Your task to perform on an android device: open app "Venmo" (install if not already installed), go to login, and select forgot password Image 0: 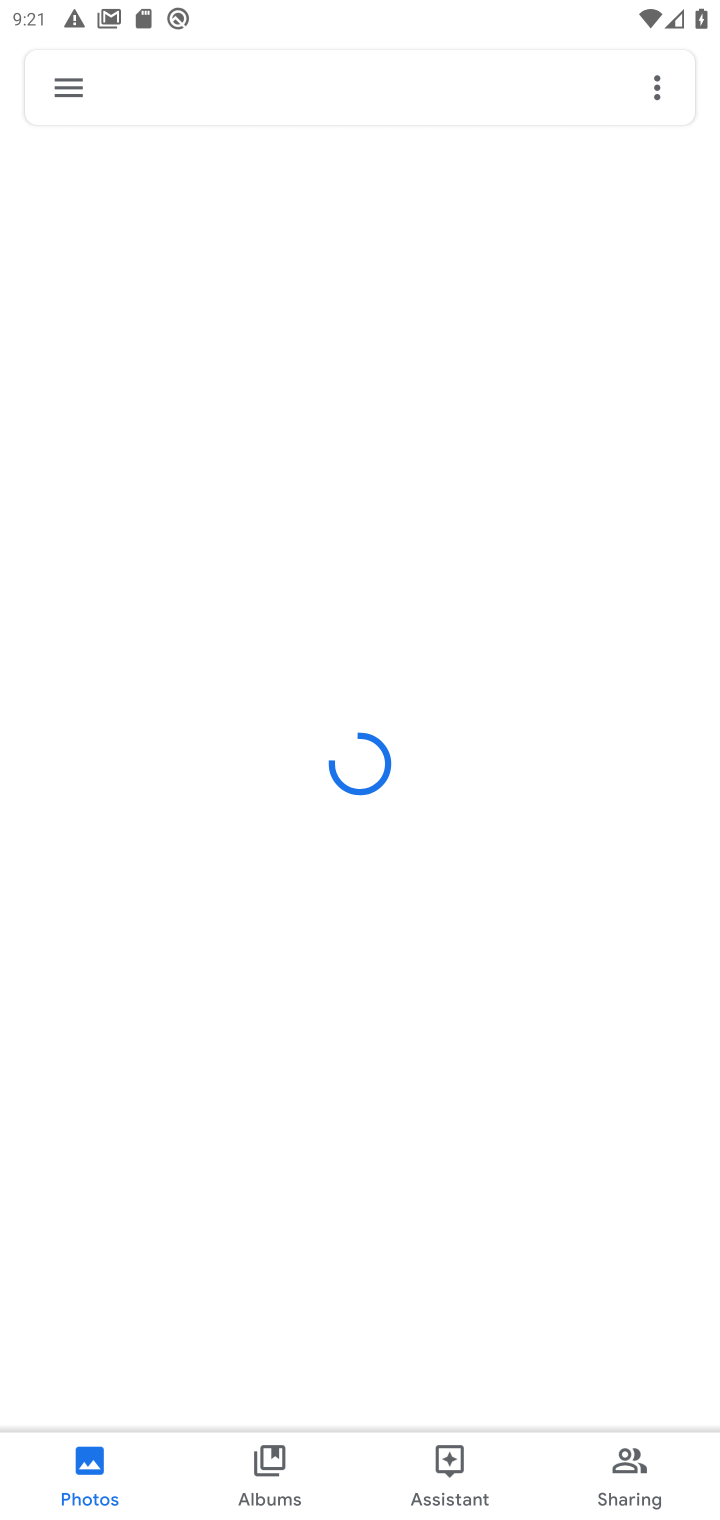
Step 0: press home button
Your task to perform on an android device: open app "Venmo" (install if not already installed), go to login, and select forgot password Image 1: 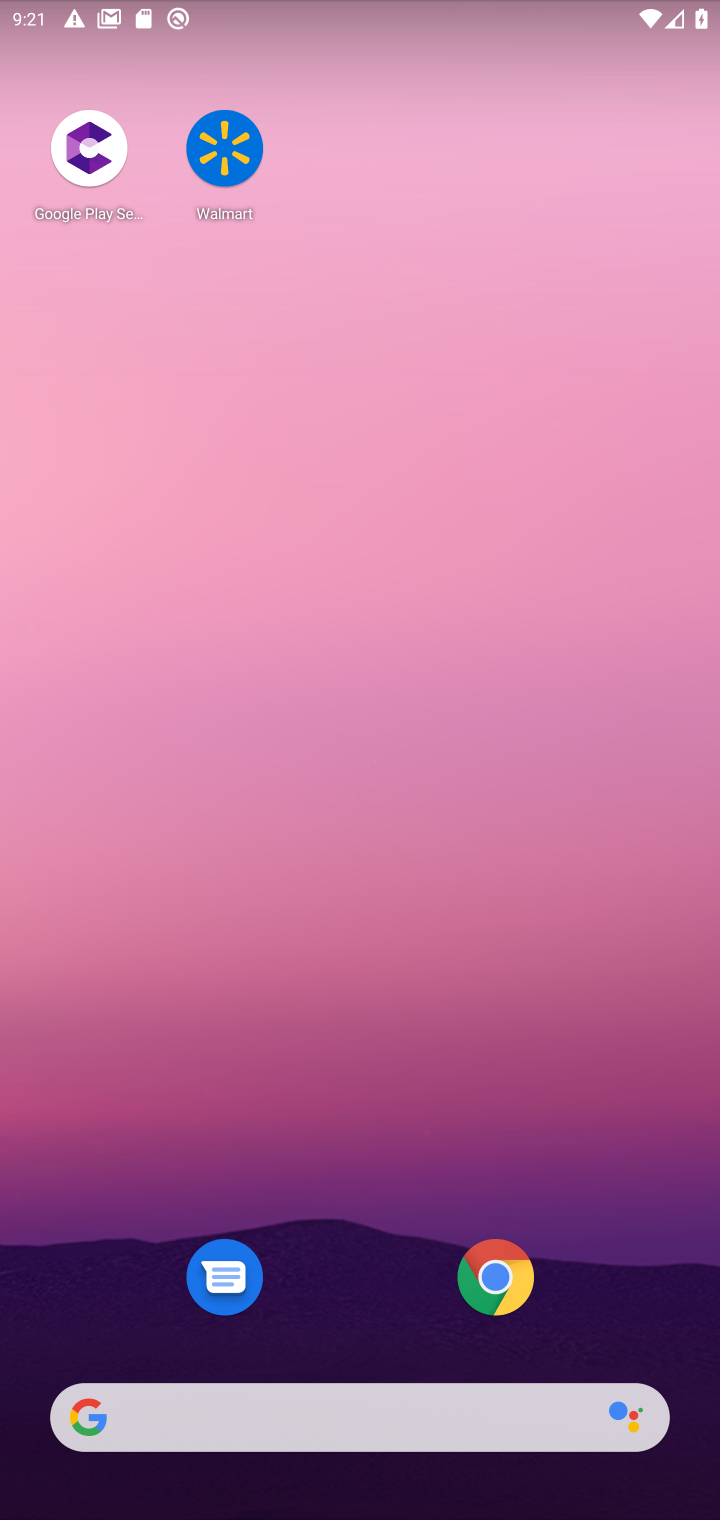
Step 1: drag from (329, 1188) to (295, 50)
Your task to perform on an android device: open app "Venmo" (install if not already installed), go to login, and select forgot password Image 2: 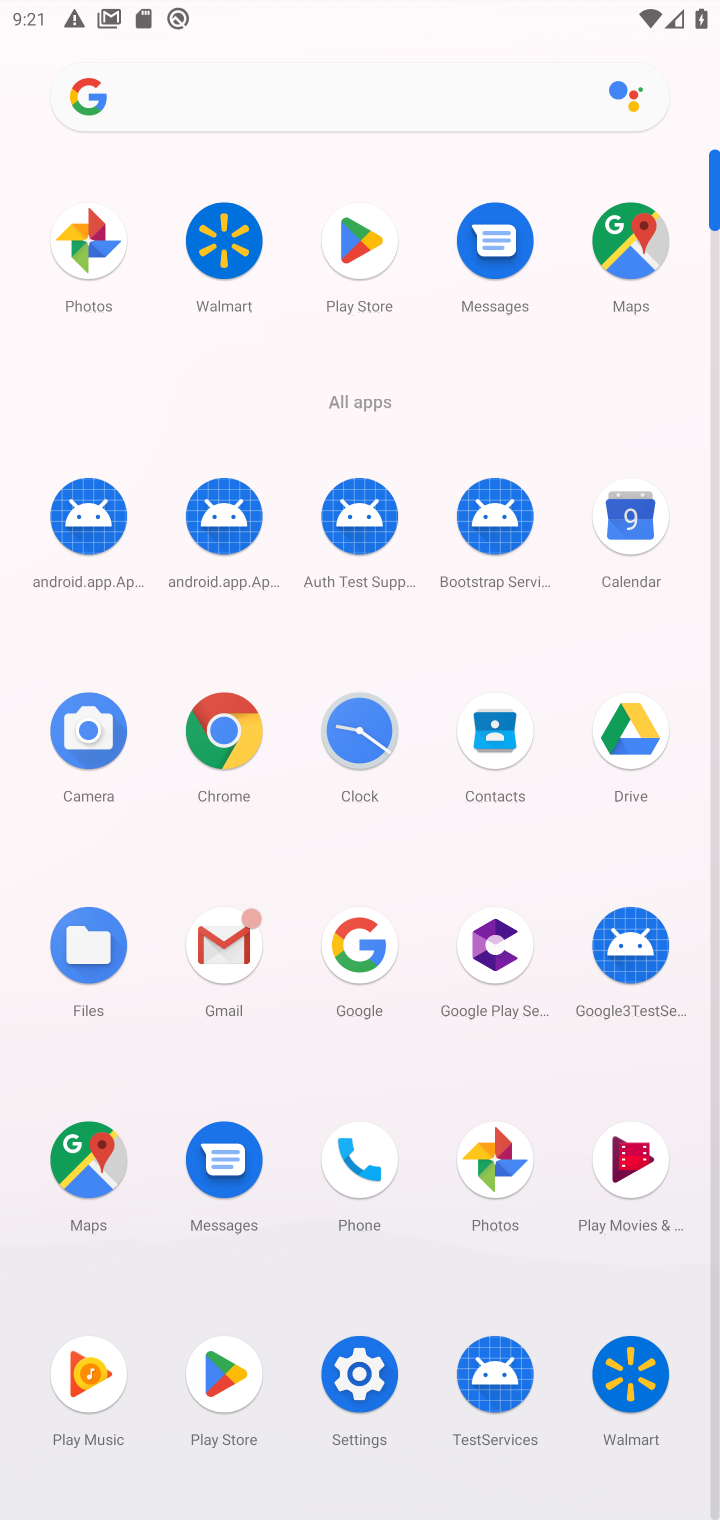
Step 2: click (208, 1346)
Your task to perform on an android device: open app "Venmo" (install if not already installed), go to login, and select forgot password Image 3: 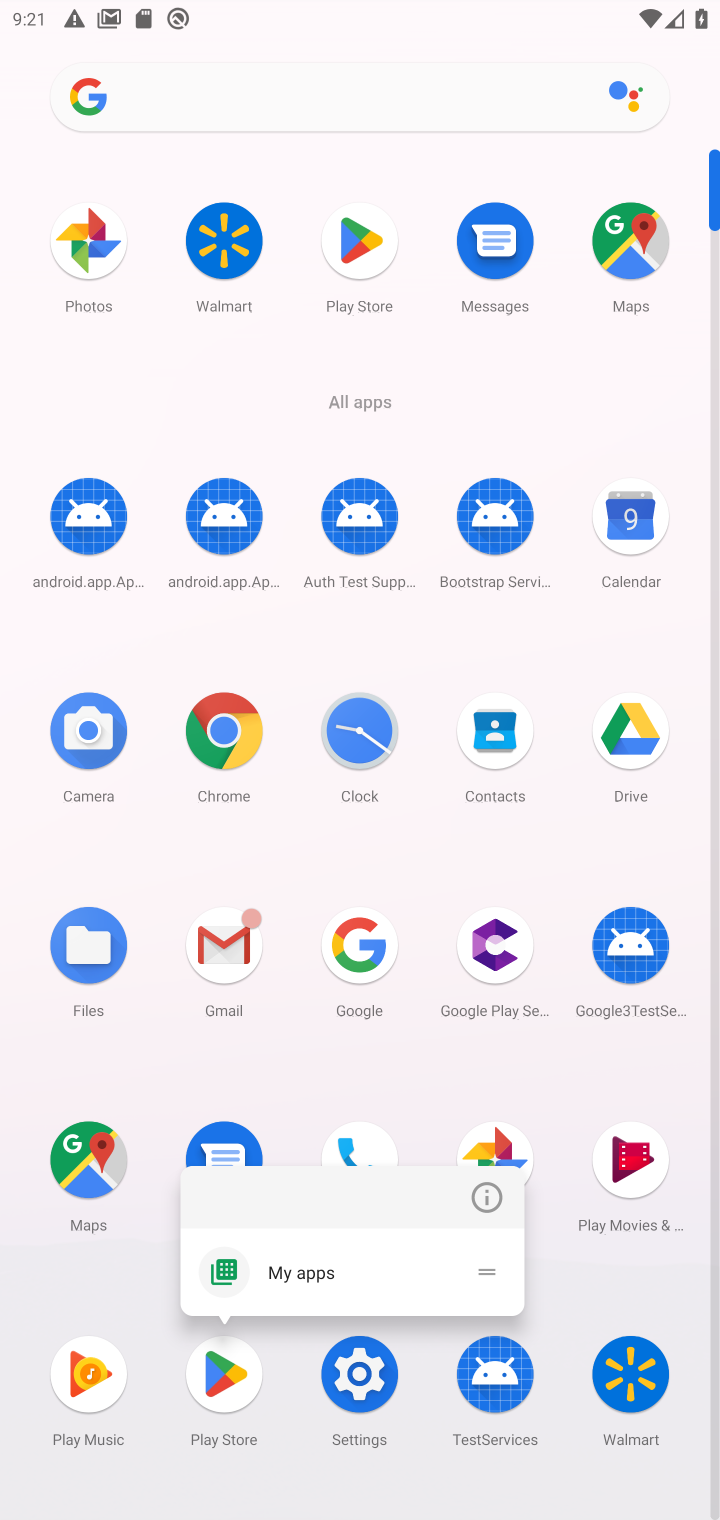
Step 3: click (217, 1368)
Your task to perform on an android device: open app "Venmo" (install if not already installed), go to login, and select forgot password Image 4: 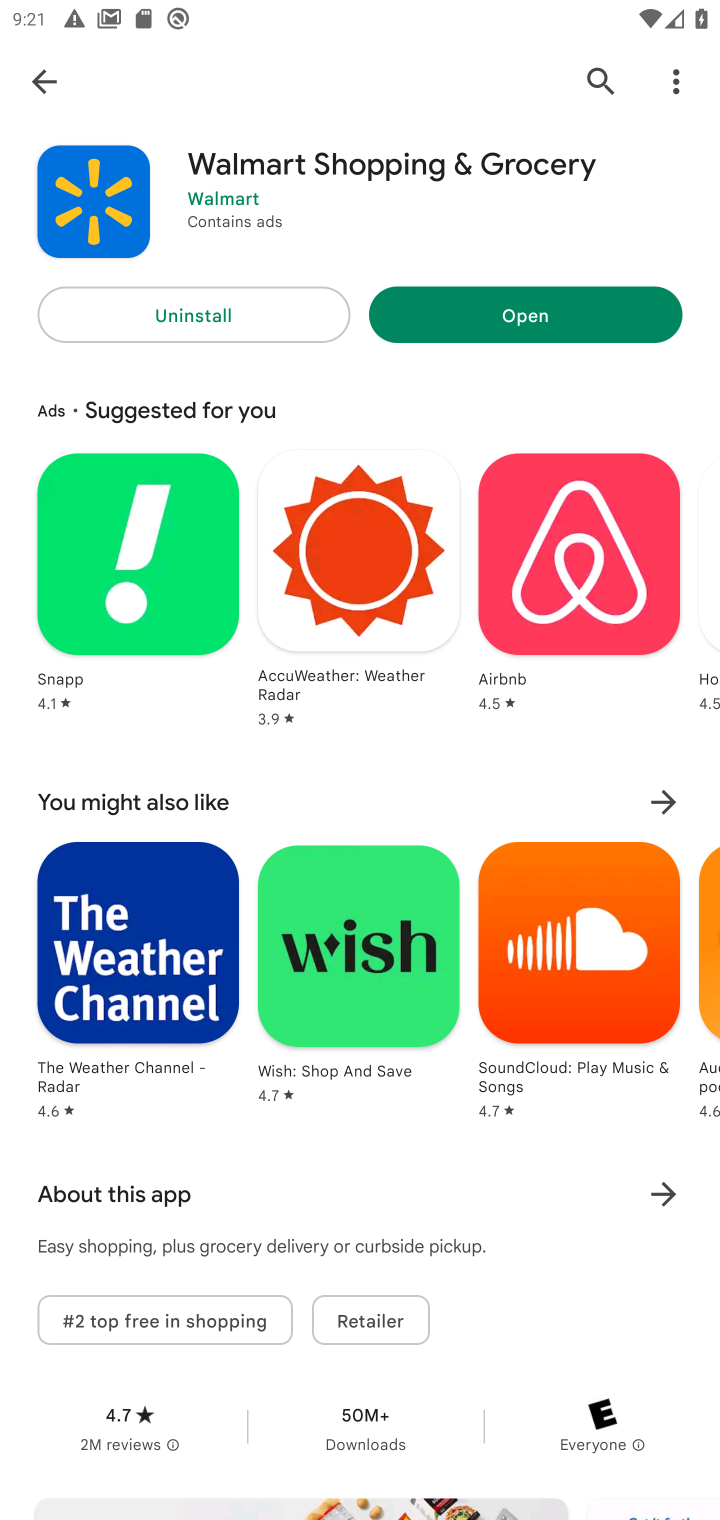
Step 4: click (46, 83)
Your task to perform on an android device: open app "Venmo" (install if not already installed), go to login, and select forgot password Image 5: 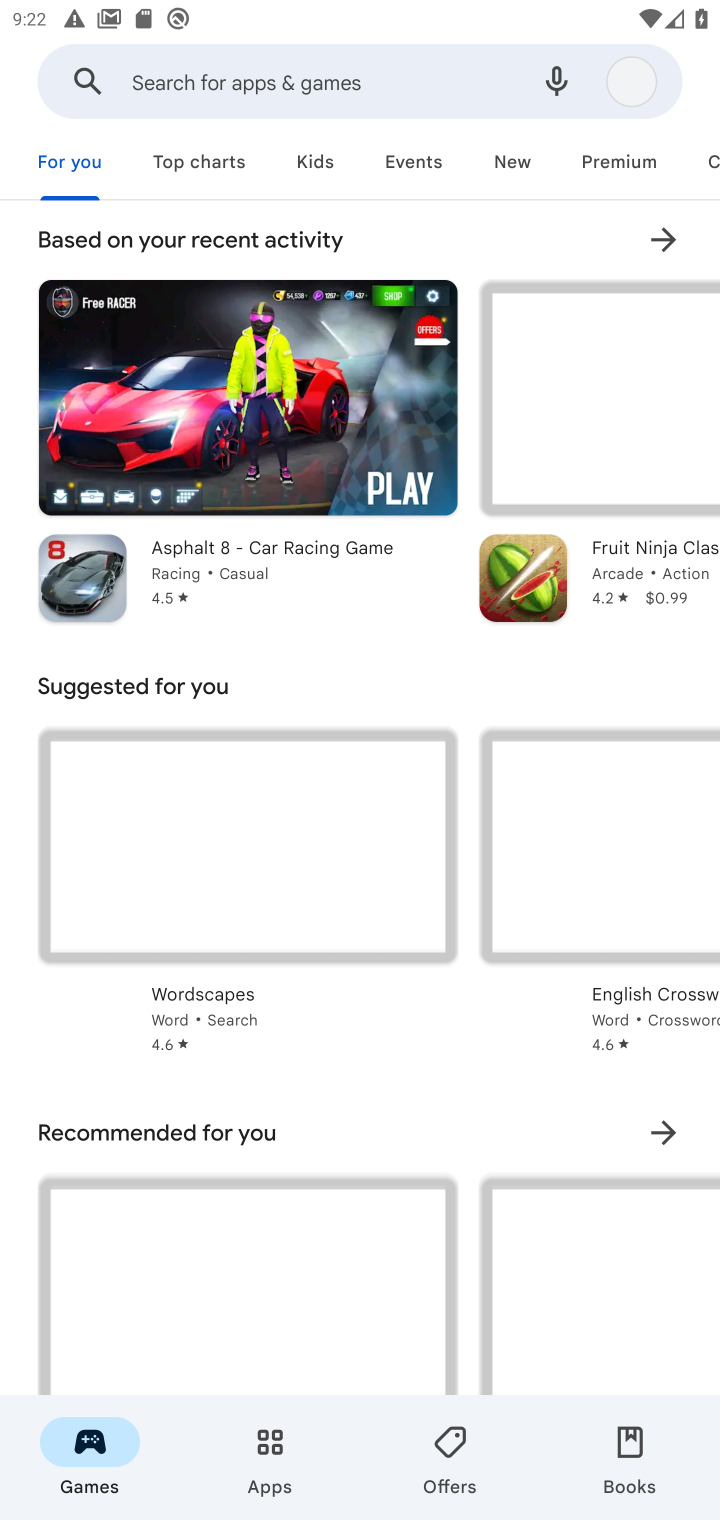
Step 5: click (292, 77)
Your task to perform on an android device: open app "Venmo" (install if not already installed), go to login, and select forgot password Image 6: 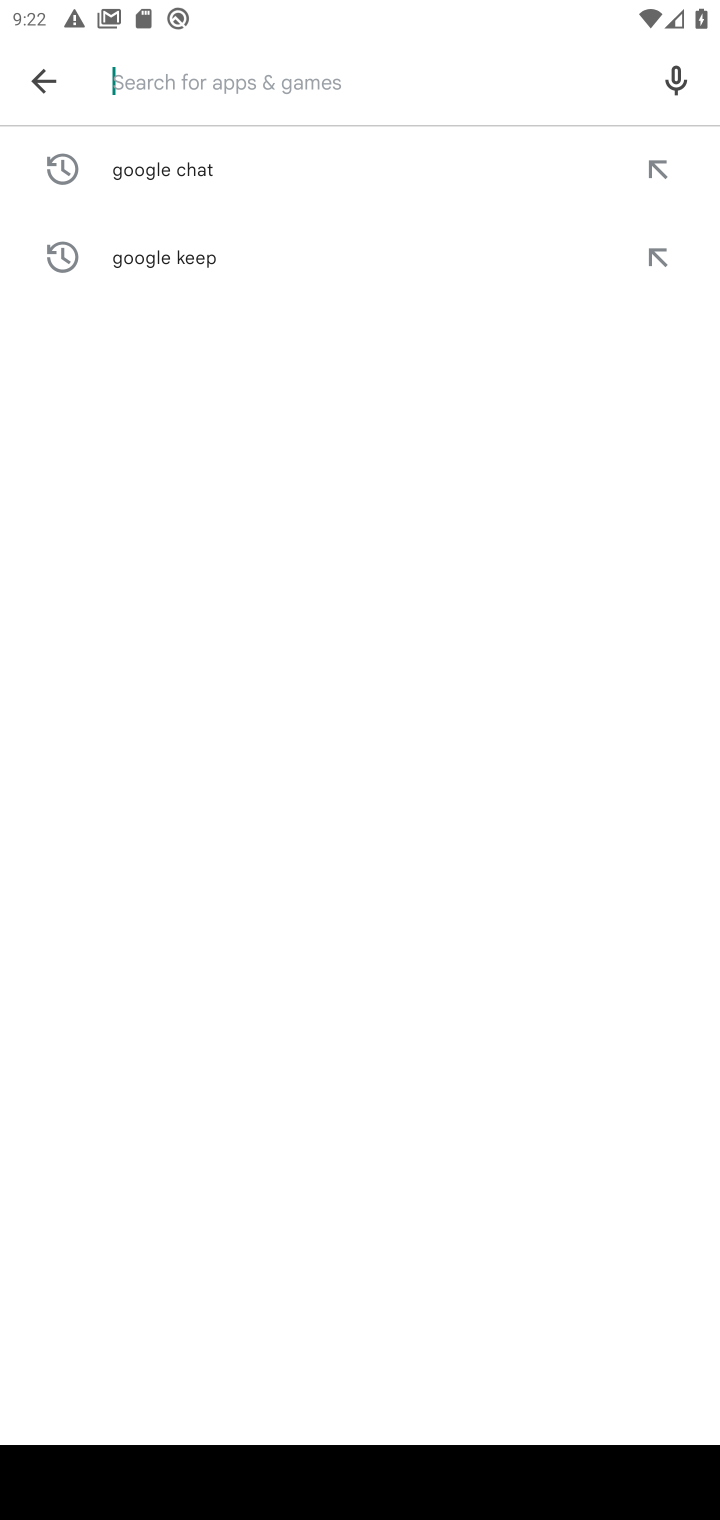
Step 6: type "Venmo"
Your task to perform on an android device: open app "Venmo" (install if not already installed), go to login, and select forgot password Image 7: 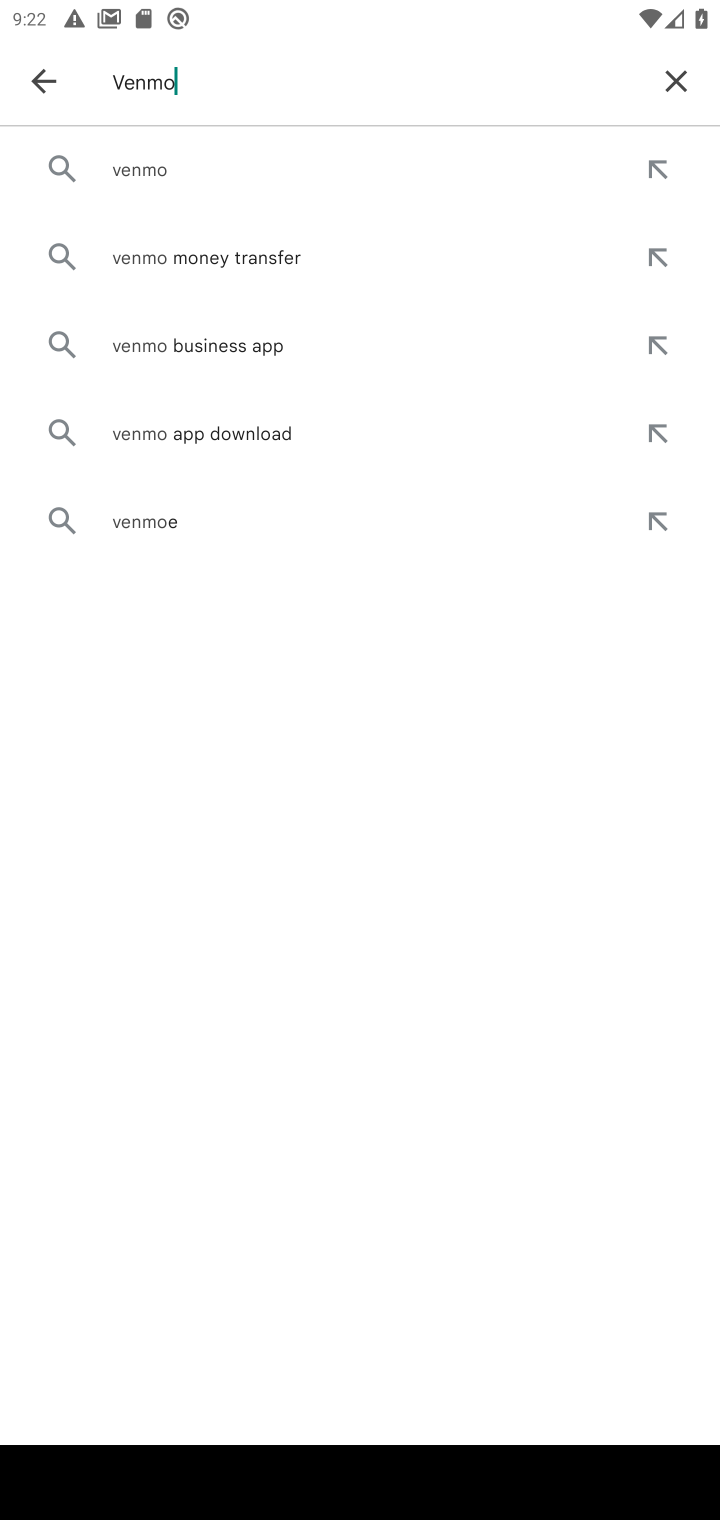
Step 7: click (191, 170)
Your task to perform on an android device: open app "Venmo" (install if not already installed), go to login, and select forgot password Image 8: 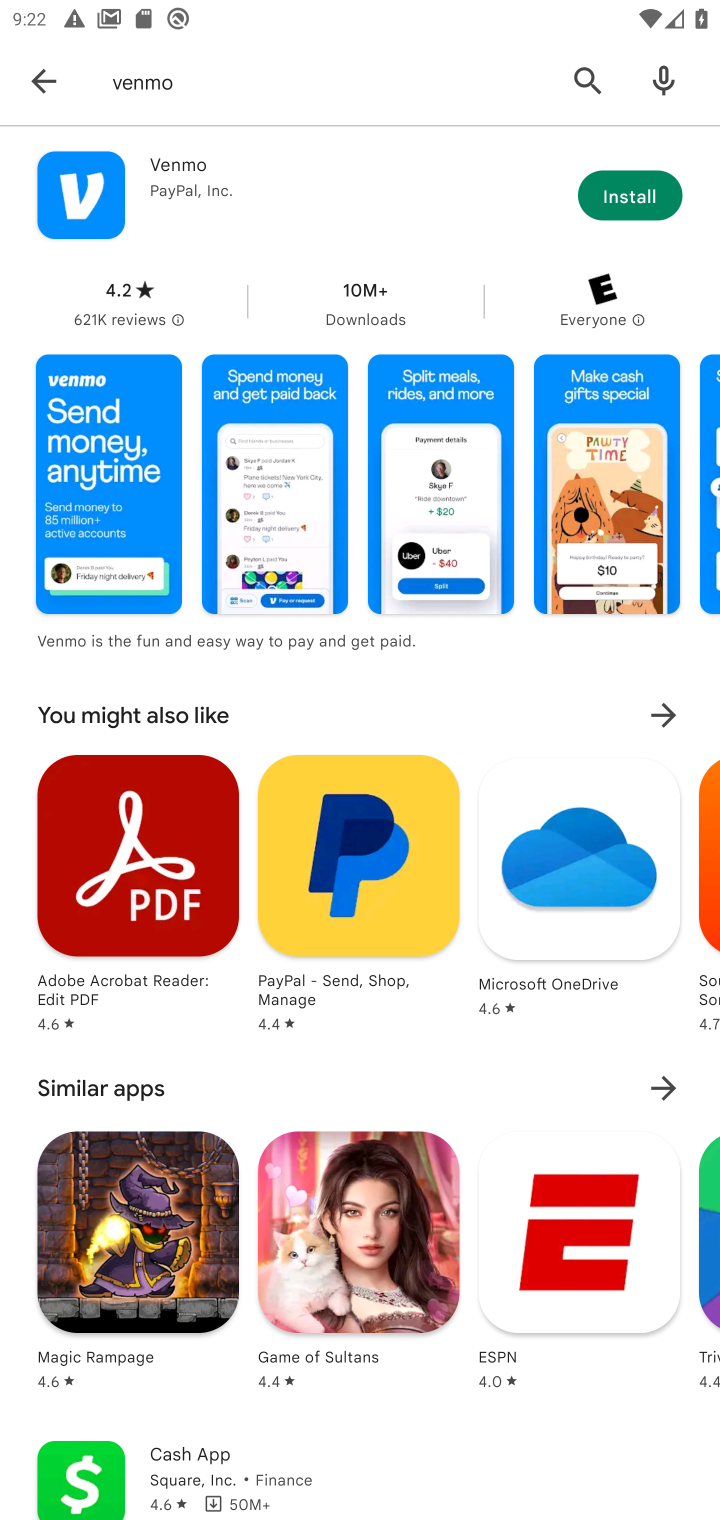
Step 8: click (608, 186)
Your task to perform on an android device: open app "Venmo" (install if not already installed), go to login, and select forgot password Image 9: 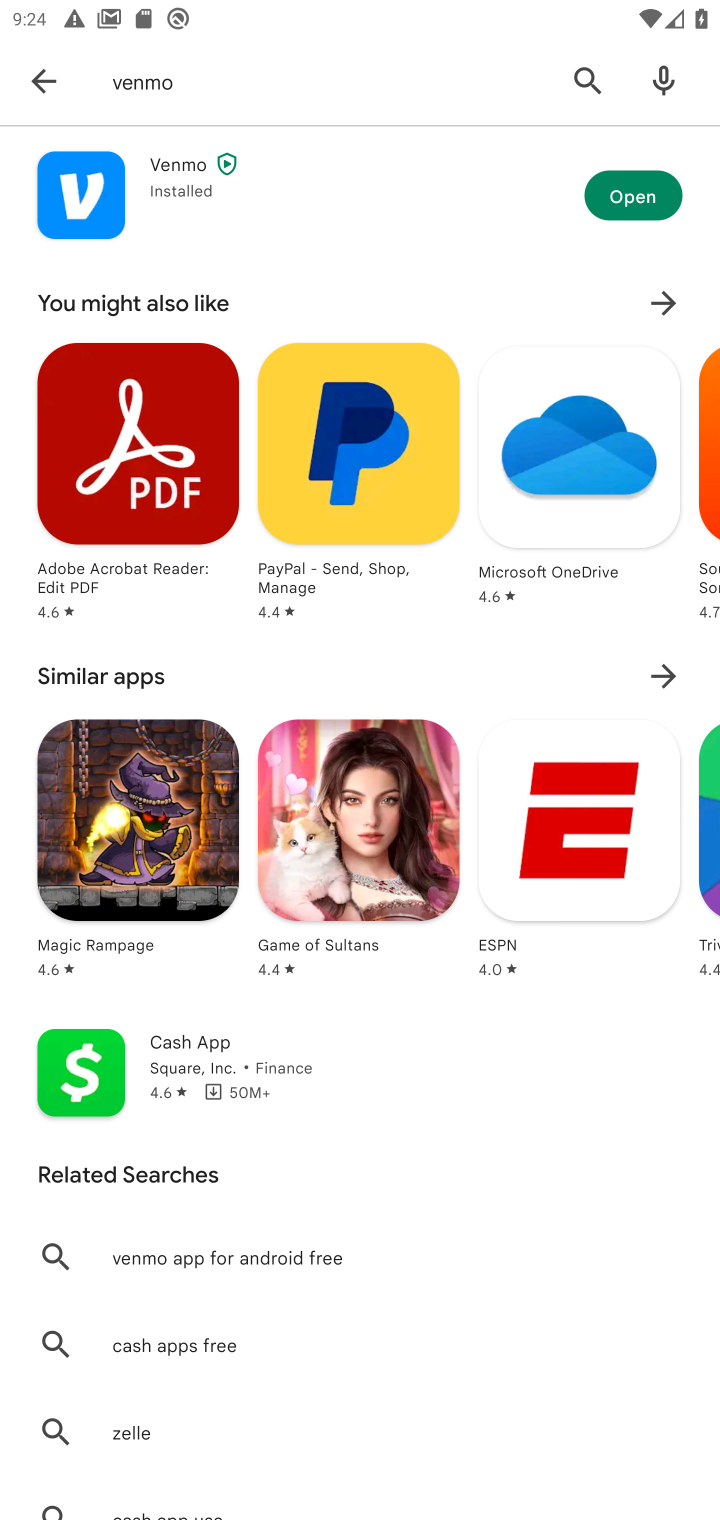
Step 9: click (590, 200)
Your task to perform on an android device: open app "Venmo" (install if not already installed), go to login, and select forgot password Image 10: 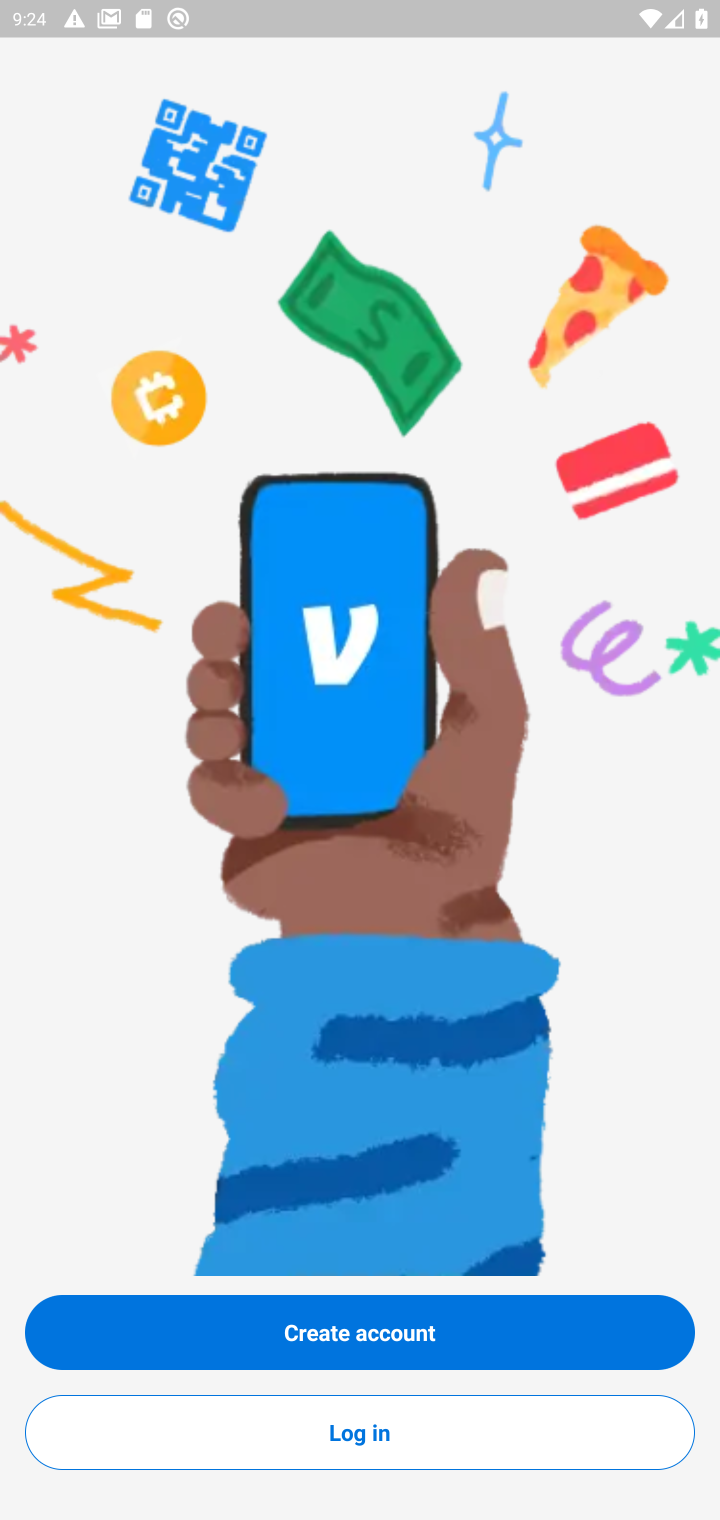
Step 10: click (354, 1438)
Your task to perform on an android device: open app "Venmo" (install if not already installed), go to login, and select forgot password Image 11: 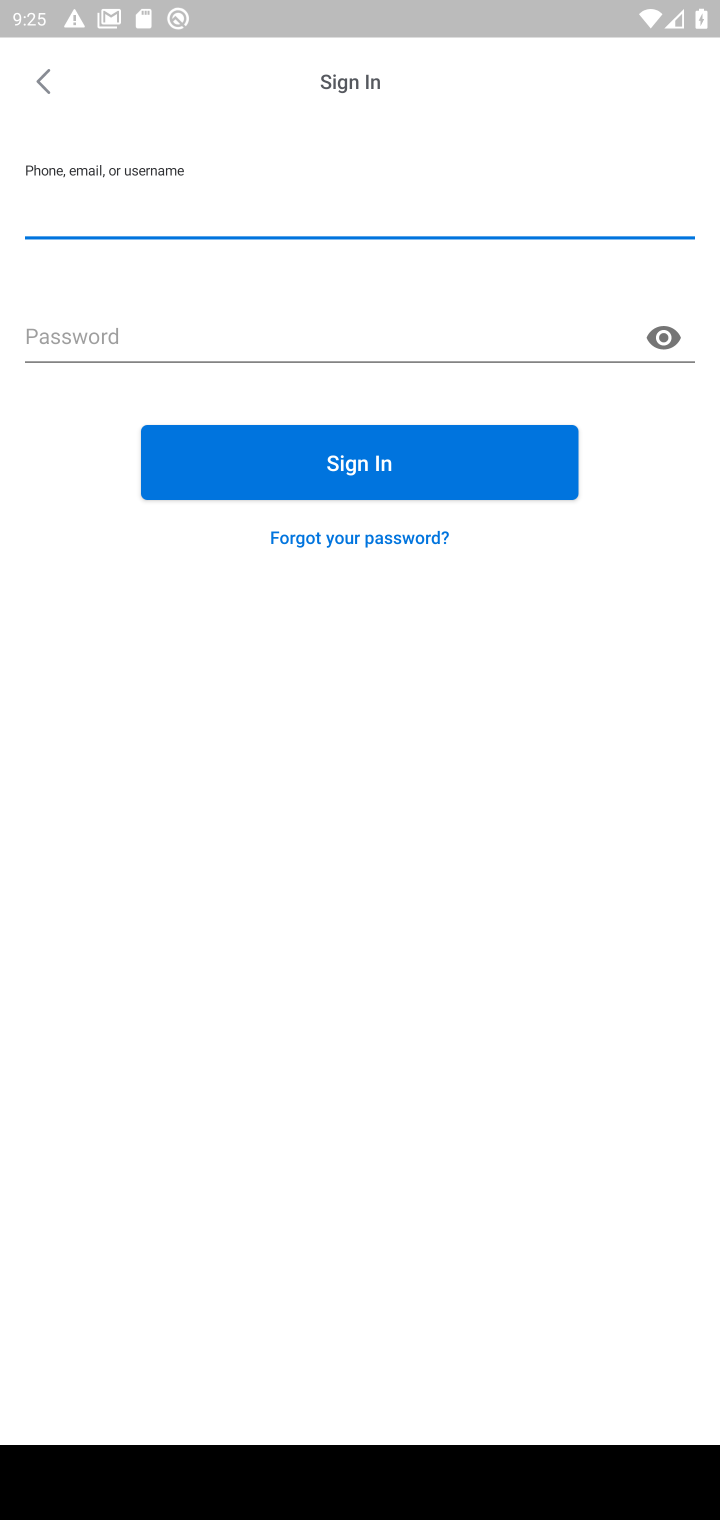
Step 11: task complete